Your task to perform on an android device: Show me popular games on the Play Store Image 0: 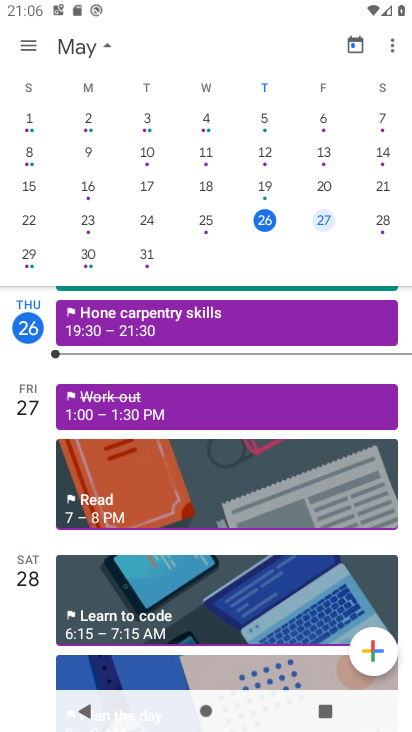
Step 0: press home button
Your task to perform on an android device: Show me popular games on the Play Store Image 1: 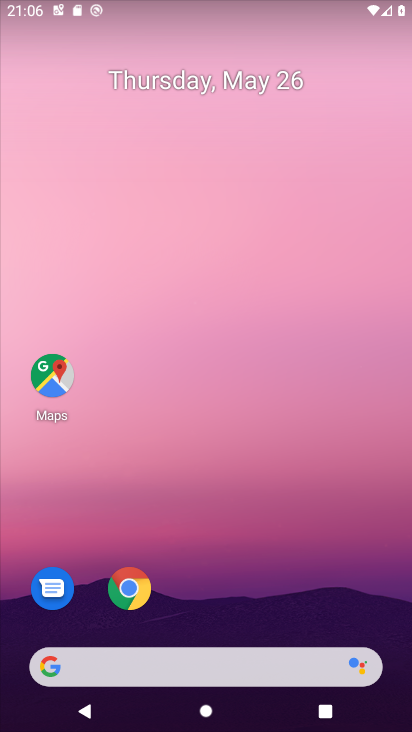
Step 1: drag from (221, 595) to (252, 0)
Your task to perform on an android device: Show me popular games on the Play Store Image 2: 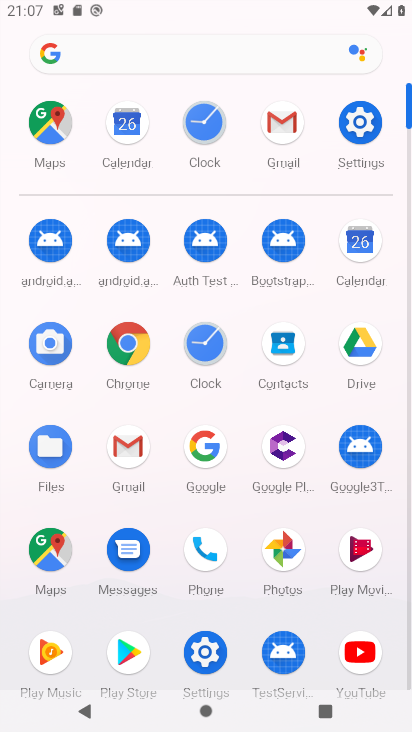
Step 2: click (133, 654)
Your task to perform on an android device: Show me popular games on the Play Store Image 3: 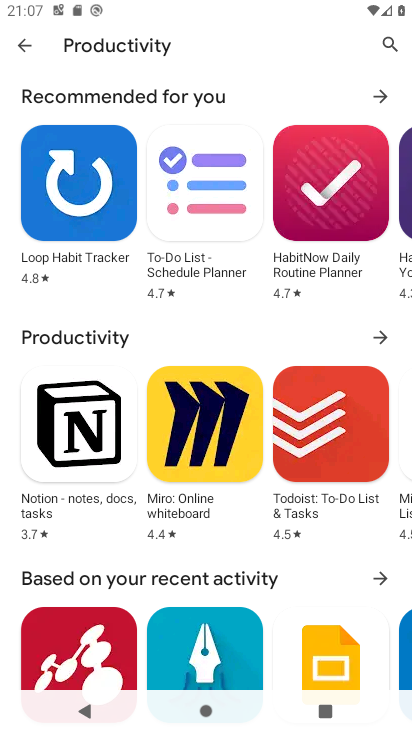
Step 3: click (28, 52)
Your task to perform on an android device: Show me popular games on the Play Store Image 4: 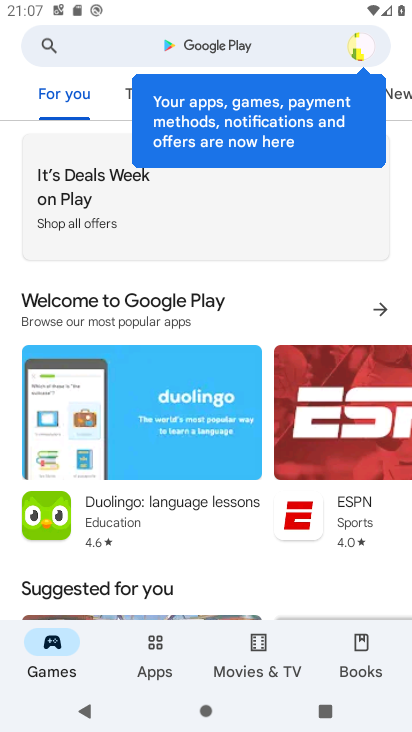
Step 4: click (49, 656)
Your task to perform on an android device: Show me popular games on the Play Store Image 5: 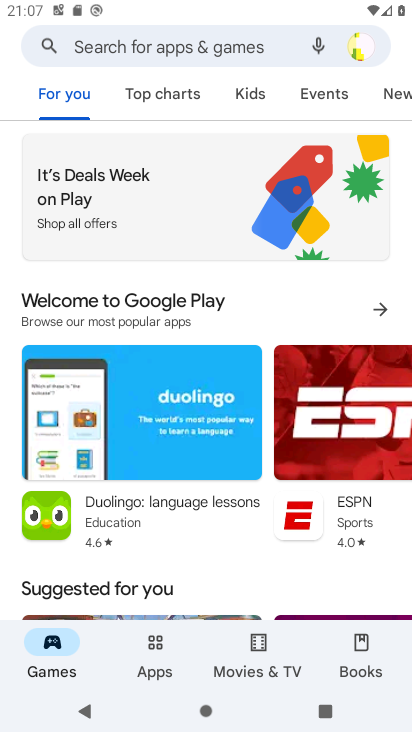
Step 5: click (136, 93)
Your task to perform on an android device: Show me popular games on the Play Store Image 6: 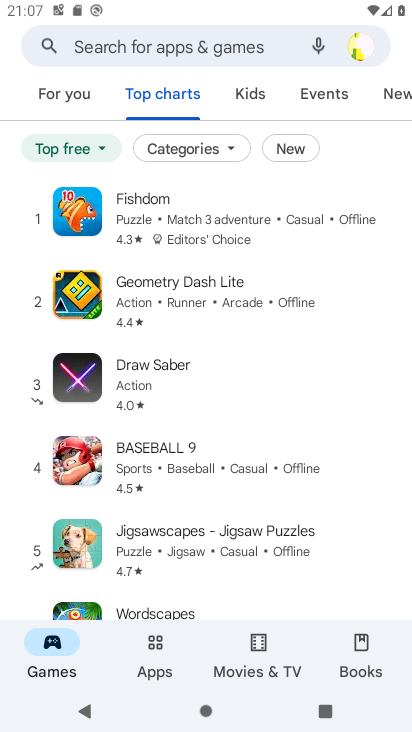
Step 6: task complete